Your task to perform on an android device: delete the emails in spam in the gmail app Image 0: 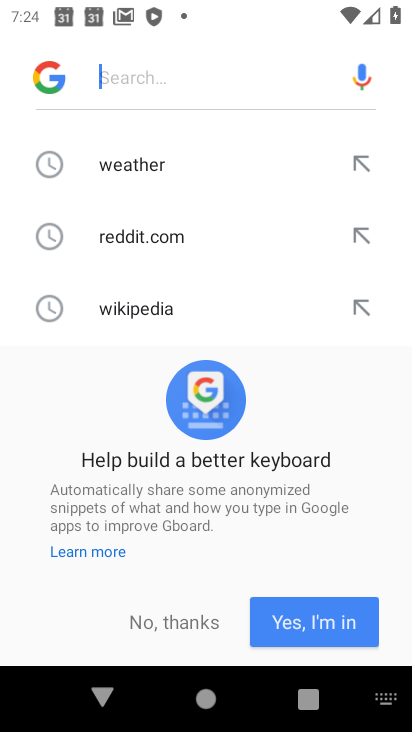
Step 0: click (168, 622)
Your task to perform on an android device: delete the emails in spam in the gmail app Image 1: 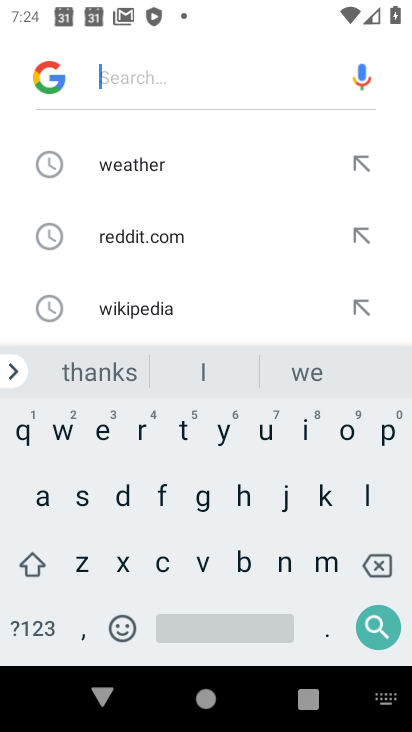
Step 1: press home button
Your task to perform on an android device: delete the emails in spam in the gmail app Image 2: 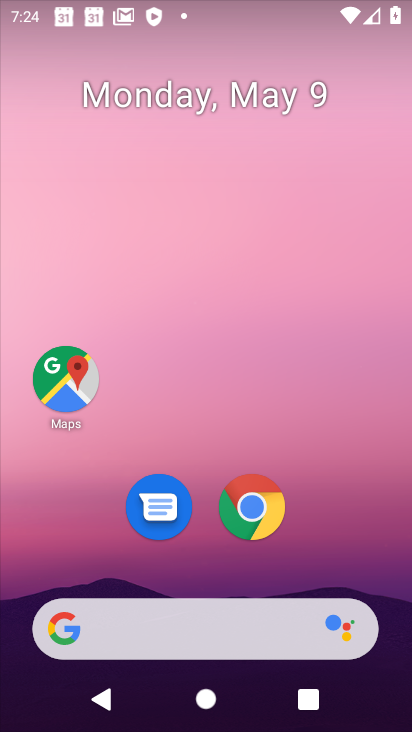
Step 2: drag from (253, 663) to (411, 209)
Your task to perform on an android device: delete the emails in spam in the gmail app Image 3: 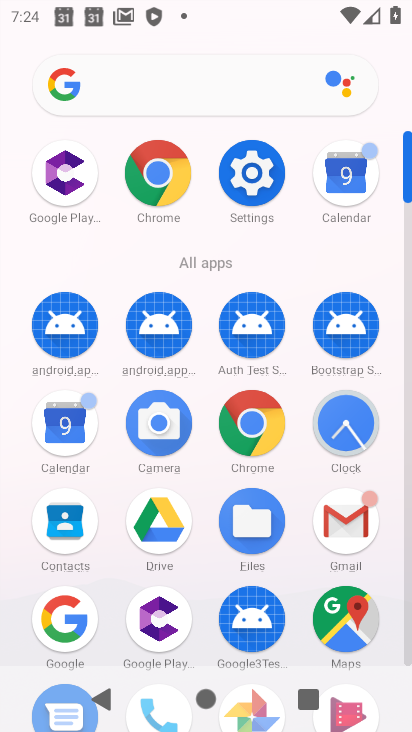
Step 3: click (334, 506)
Your task to perform on an android device: delete the emails in spam in the gmail app Image 4: 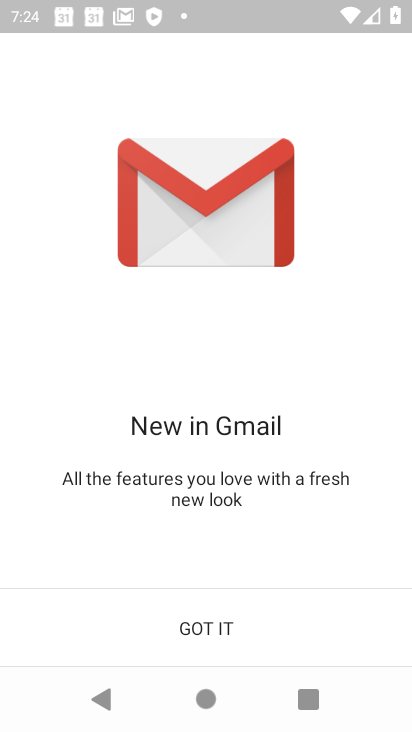
Step 4: click (230, 620)
Your task to perform on an android device: delete the emails in spam in the gmail app Image 5: 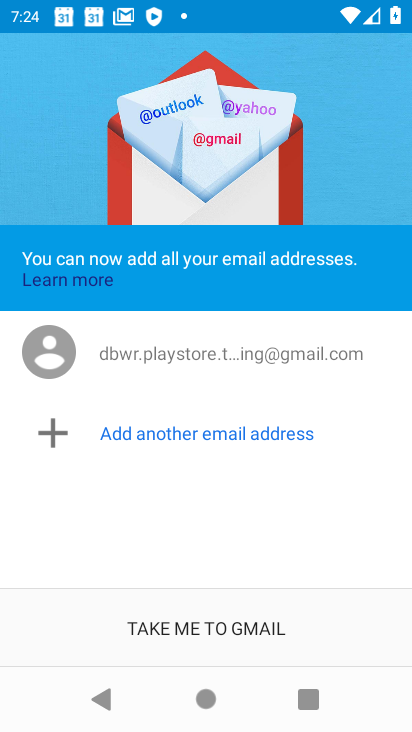
Step 5: click (217, 621)
Your task to perform on an android device: delete the emails in spam in the gmail app Image 6: 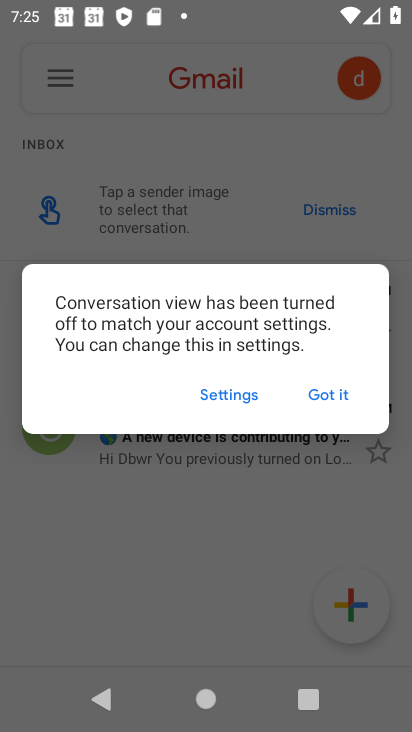
Step 6: click (309, 387)
Your task to perform on an android device: delete the emails in spam in the gmail app Image 7: 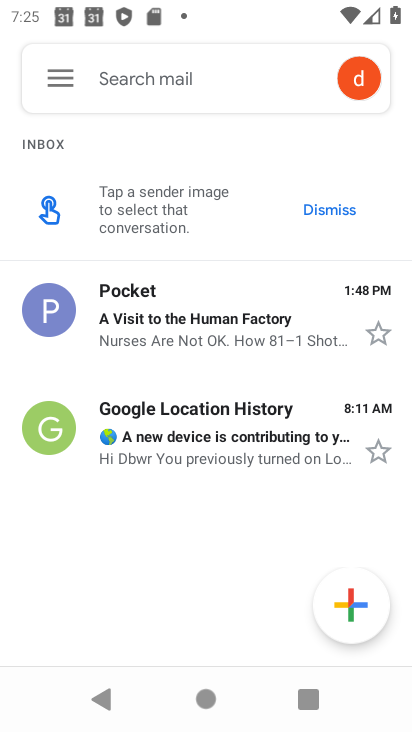
Step 7: click (323, 220)
Your task to perform on an android device: delete the emails in spam in the gmail app Image 8: 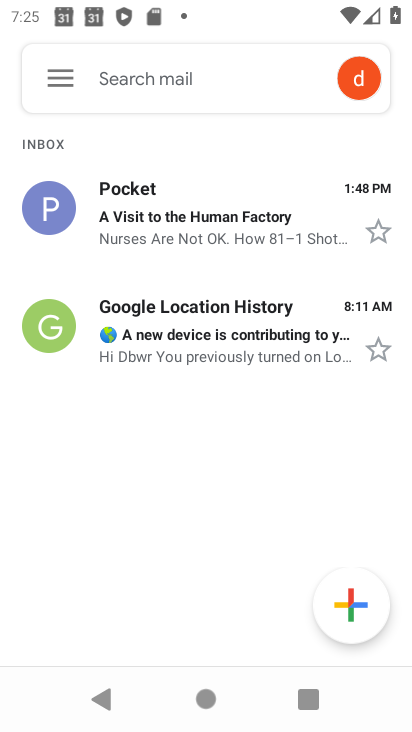
Step 8: click (73, 77)
Your task to perform on an android device: delete the emails in spam in the gmail app Image 9: 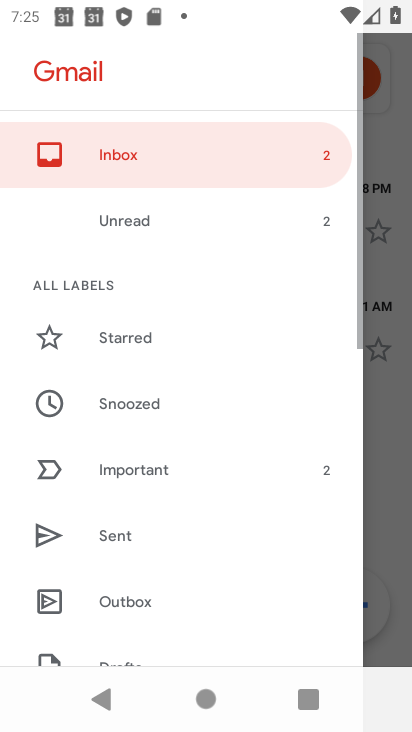
Step 9: drag from (146, 539) to (259, 320)
Your task to perform on an android device: delete the emails in spam in the gmail app Image 10: 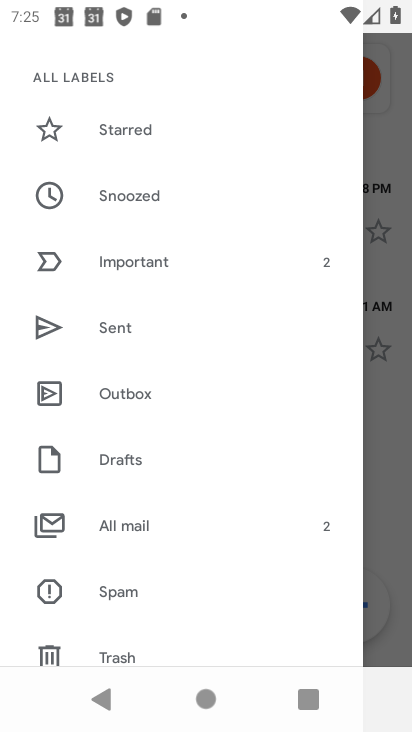
Step 10: click (149, 585)
Your task to perform on an android device: delete the emails in spam in the gmail app Image 11: 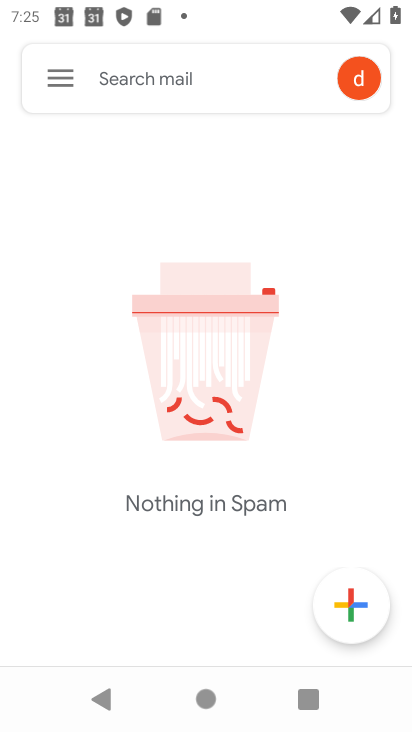
Step 11: task complete